Your task to perform on an android device: Show me popular videos on Youtube Image 0: 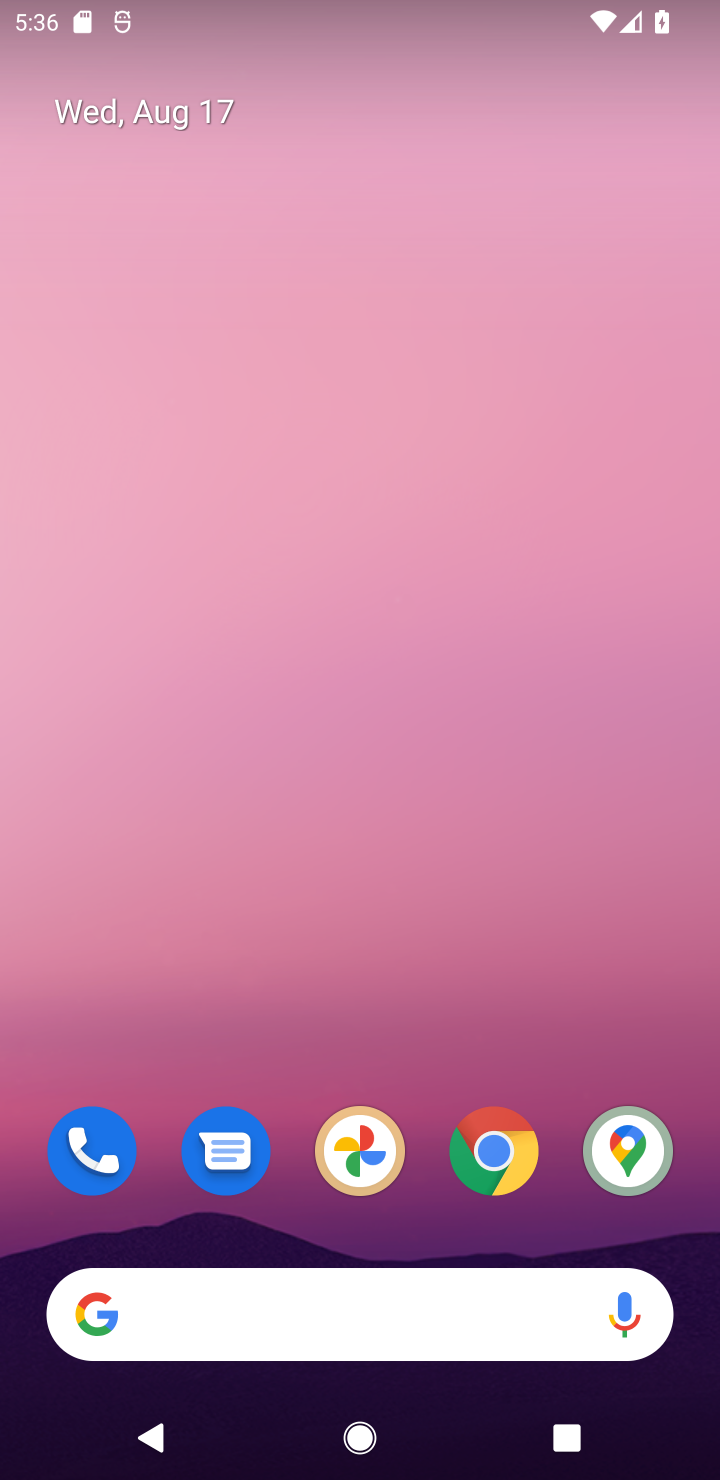
Step 0: drag from (395, 1246) to (360, 5)
Your task to perform on an android device: Show me popular videos on Youtube Image 1: 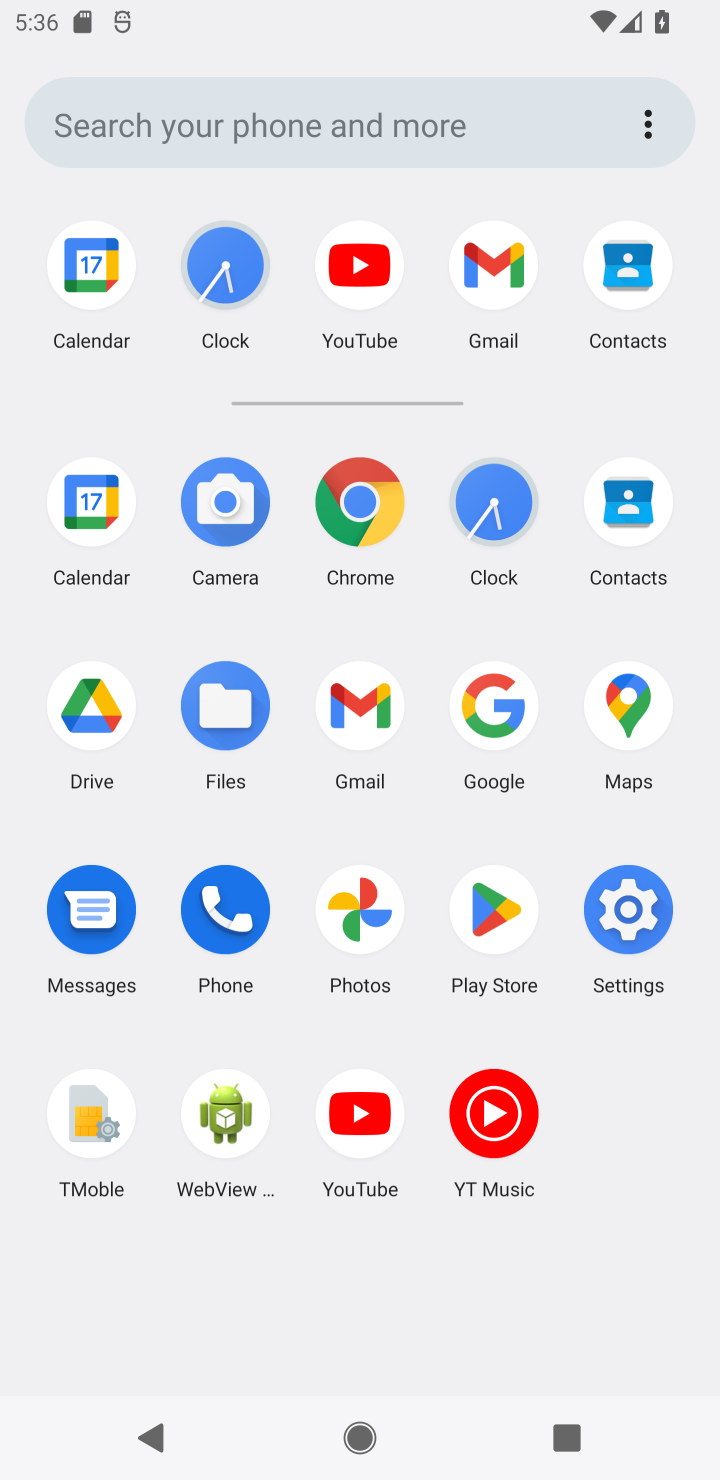
Step 1: click (360, 5)
Your task to perform on an android device: Show me popular videos on Youtube Image 2: 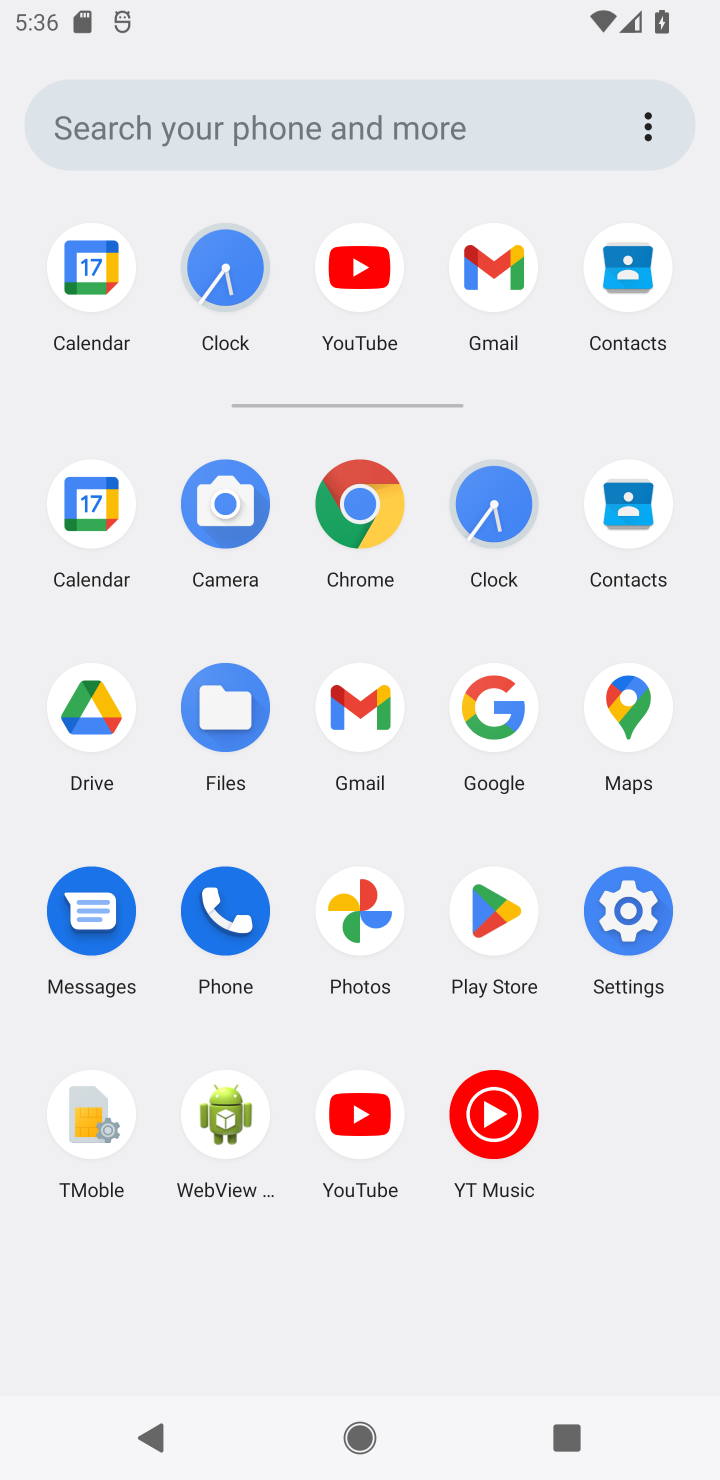
Step 2: click (372, 248)
Your task to perform on an android device: Show me popular videos on Youtube Image 3: 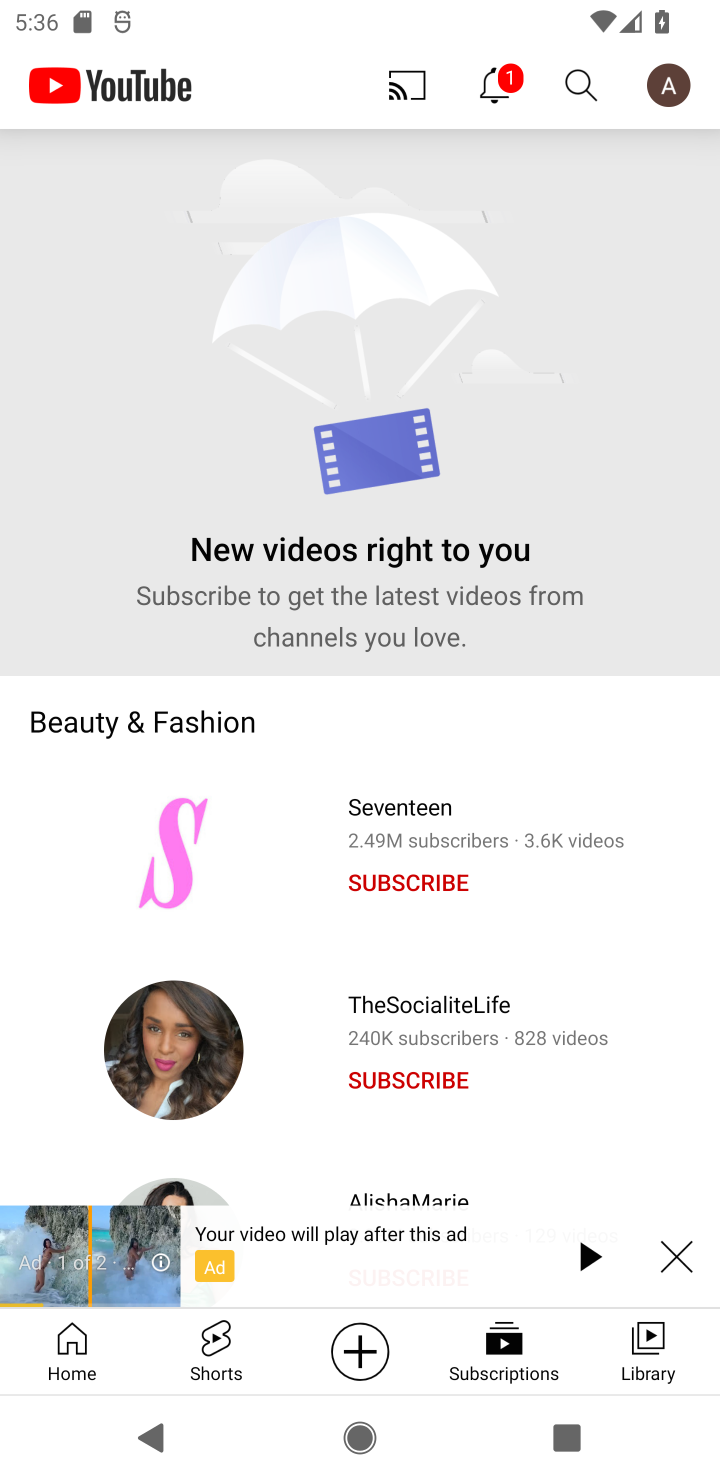
Step 3: task complete